Your task to perform on an android device: open chrome and create a bookmark for the current page Image 0: 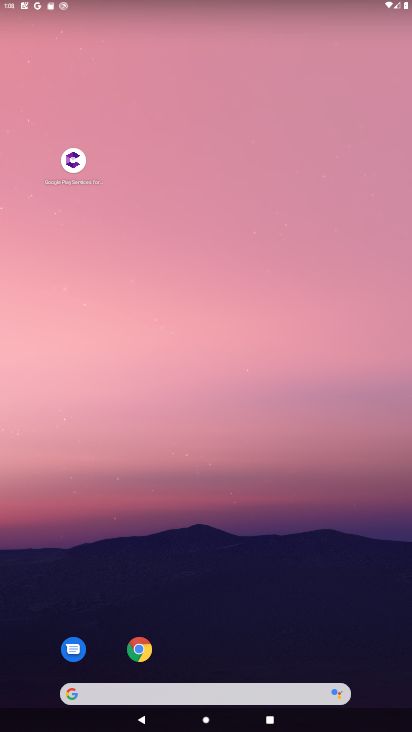
Step 0: drag from (263, 632) to (271, 169)
Your task to perform on an android device: open chrome and create a bookmark for the current page Image 1: 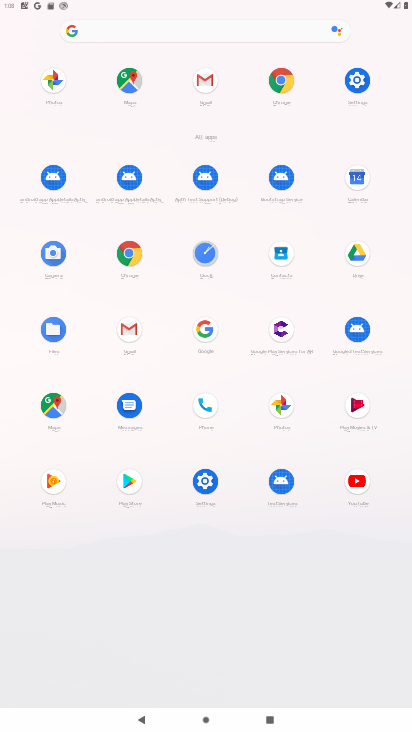
Step 1: click (130, 255)
Your task to perform on an android device: open chrome and create a bookmark for the current page Image 2: 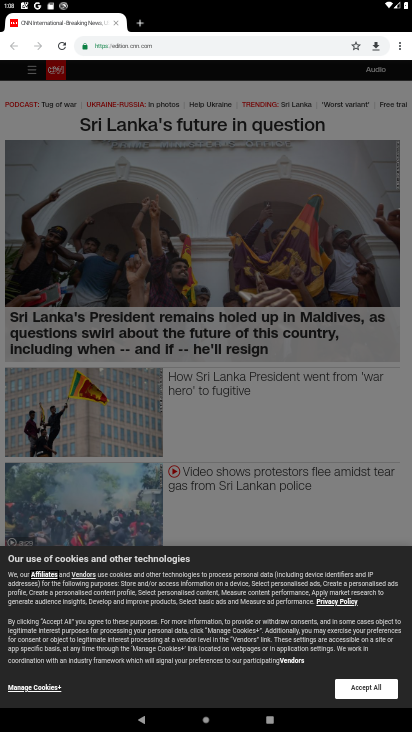
Step 2: drag from (395, 39) to (12, 175)
Your task to perform on an android device: open chrome and create a bookmark for the current page Image 3: 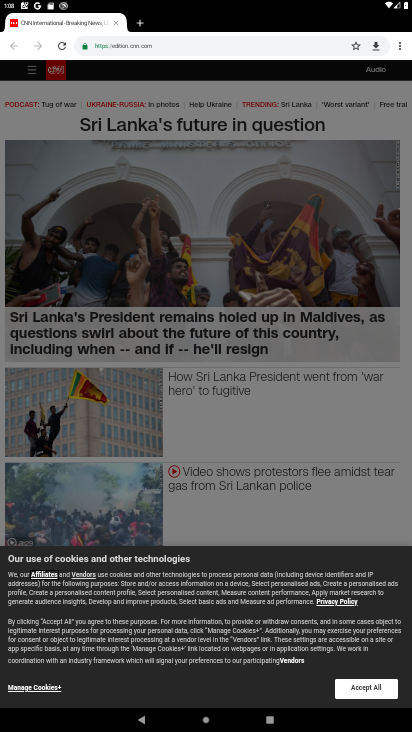
Step 3: click (352, 48)
Your task to perform on an android device: open chrome and create a bookmark for the current page Image 4: 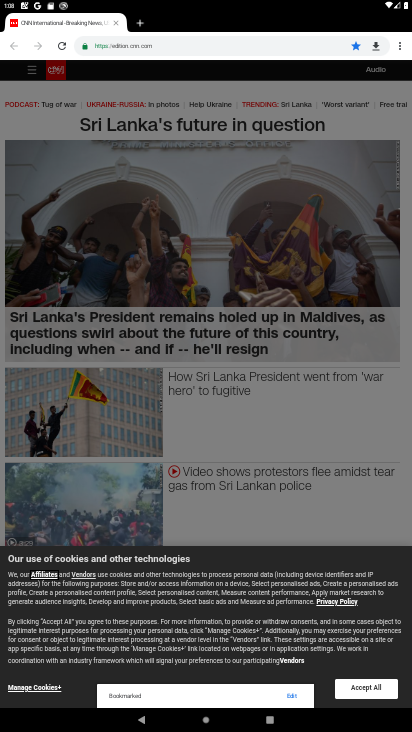
Step 4: task complete